Your task to perform on an android device: Add "macbook pro 13 inch" to the cart on newegg Image 0: 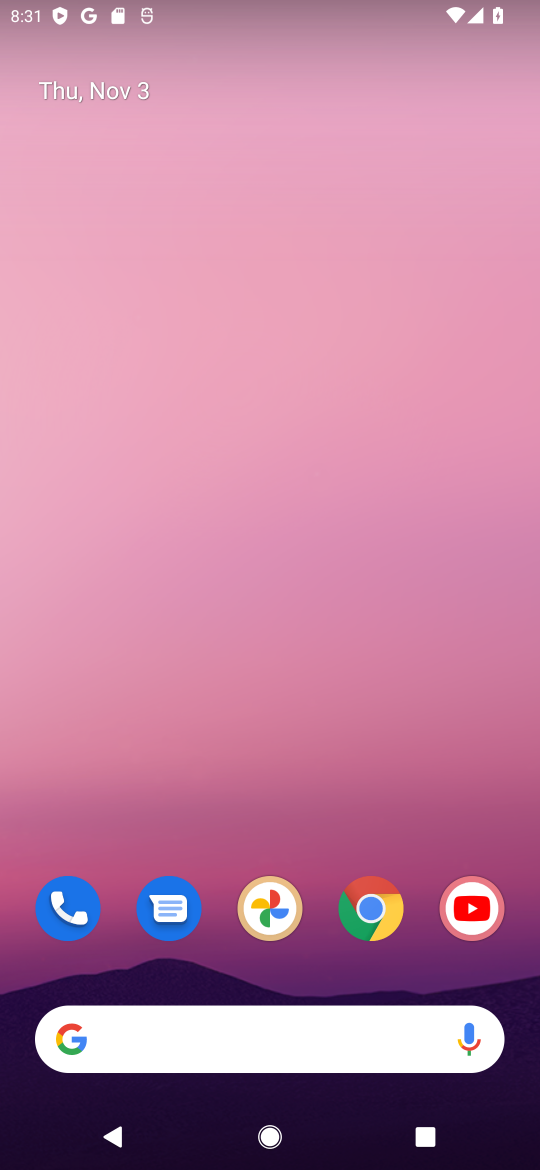
Step 0: click (371, 907)
Your task to perform on an android device: Add "macbook pro 13 inch" to the cart on newegg Image 1: 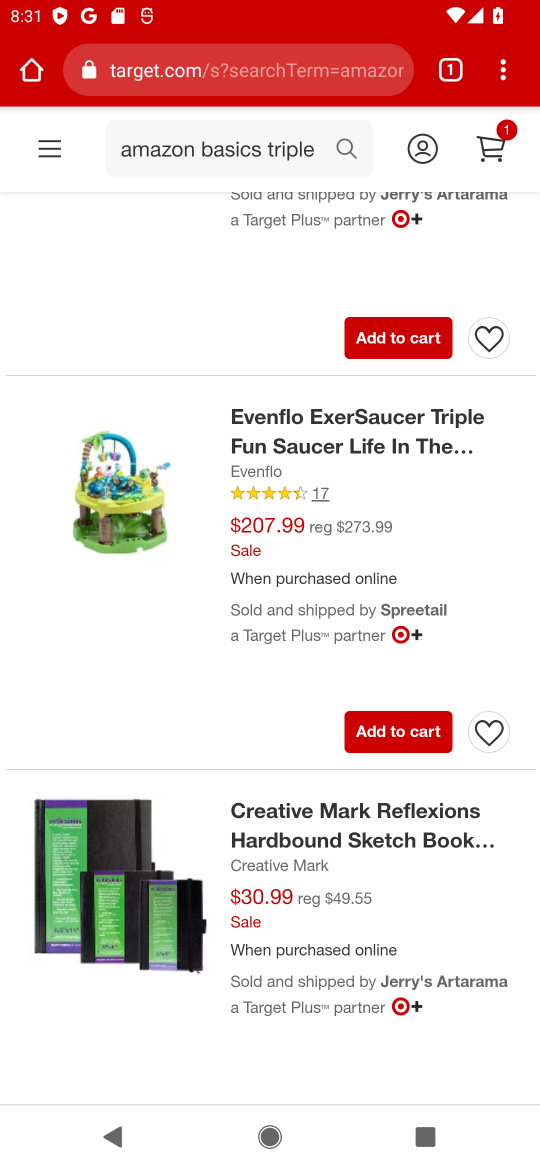
Step 1: click (31, 74)
Your task to perform on an android device: Add "macbook pro 13 inch" to the cart on newegg Image 2: 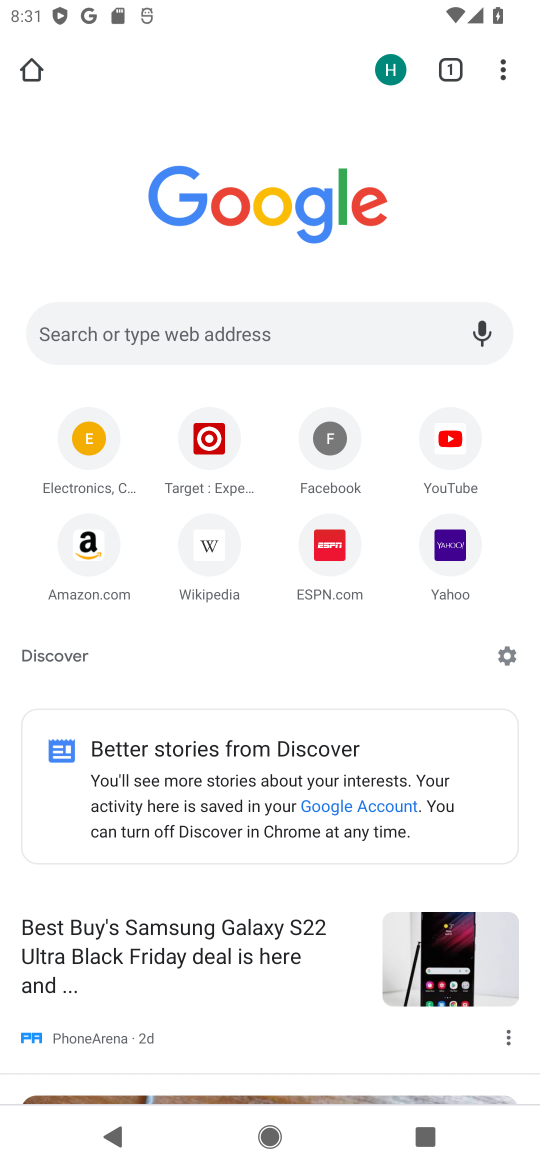
Step 2: click (297, 330)
Your task to perform on an android device: Add "macbook pro 13 inch" to the cart on newegg Image 3: 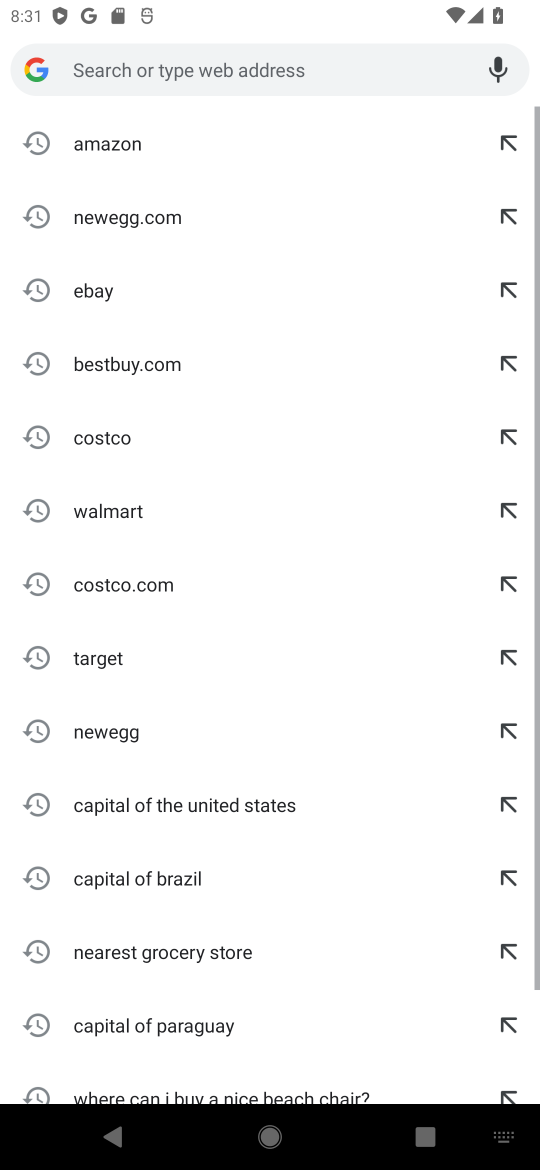
Step 3: click (118, 206)
Your task to perform on an android device: Add "macbook pro 13 inch" to the cart on newegg Image 4: 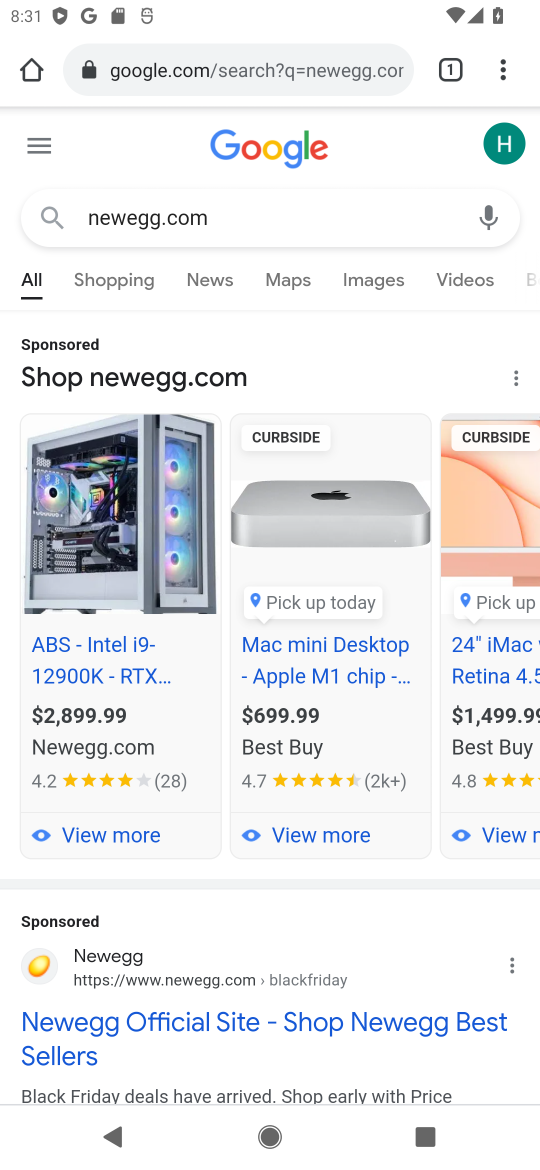
Step 4: click (208, 976)
Your task to perform on an android device: Add "macbook pro 13 inch" to the cart on newegg Image 5: 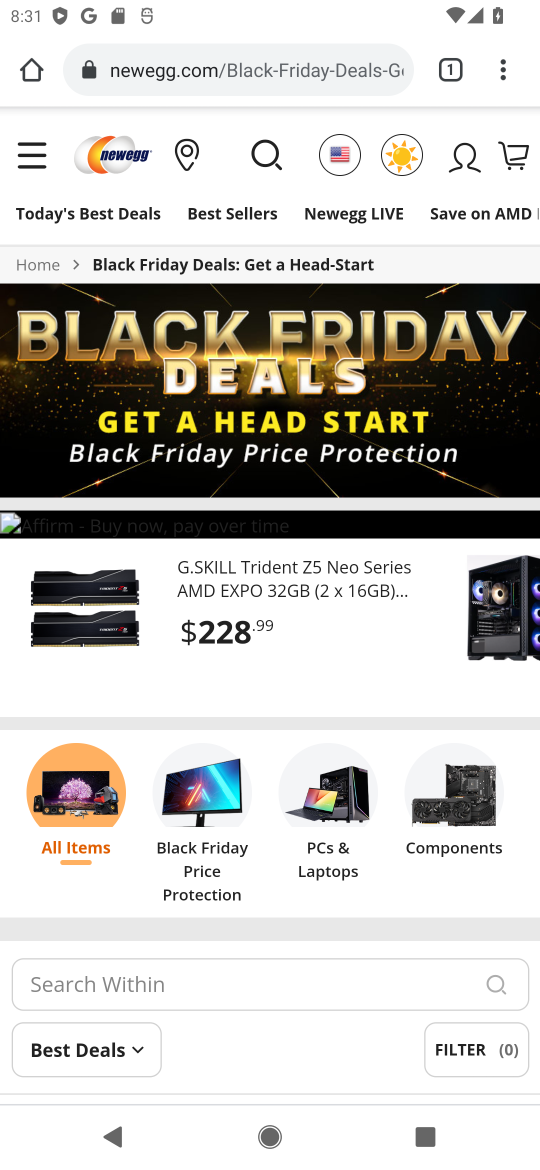
Step 5: click (254, 148)
Your task to perform on an android device: Add "macbook pro 13 inch" to the cart on newegg Image 6: 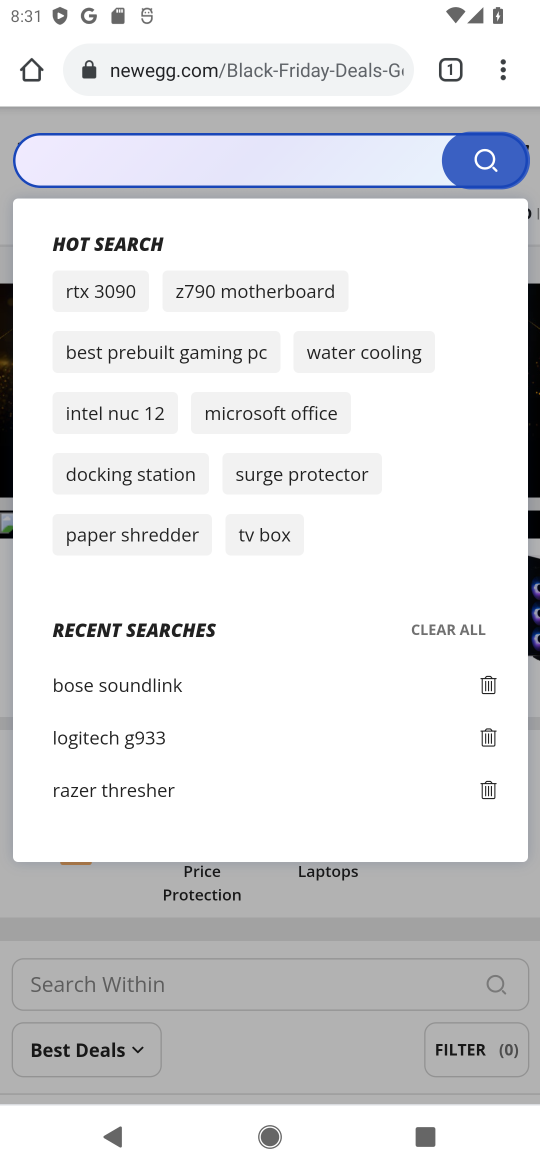
Step 6: type "macbook pro 13"
Your task to perform on an android device: Add "macbook pro 13 inch" to the cart on newegg Image 7: 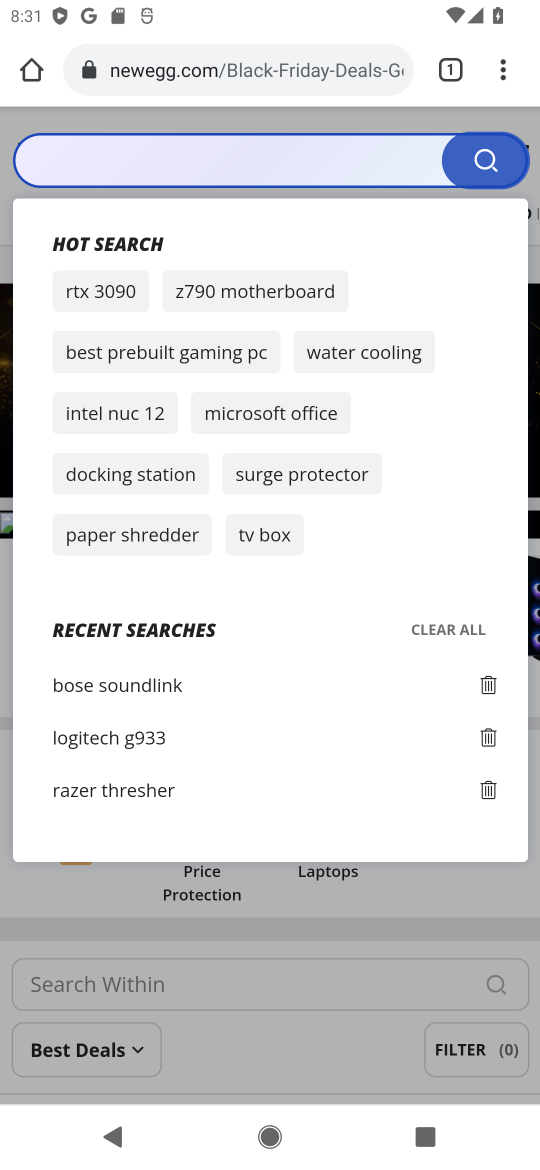
Step 7: press enter
Your task to perform on an android device: Add "macbook pro 13 inch" to the cart on newegg Image 8: 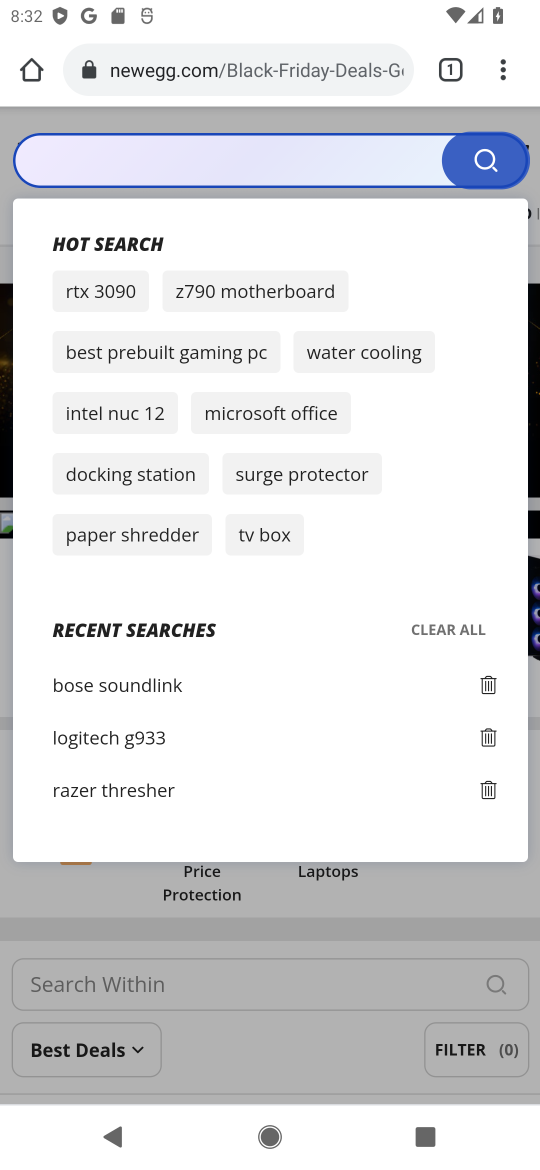
Step 8: click (347, 154)
Your task to perform on an android device: Add "macbook pro 13 inch" to the cart on newegg Image 9: 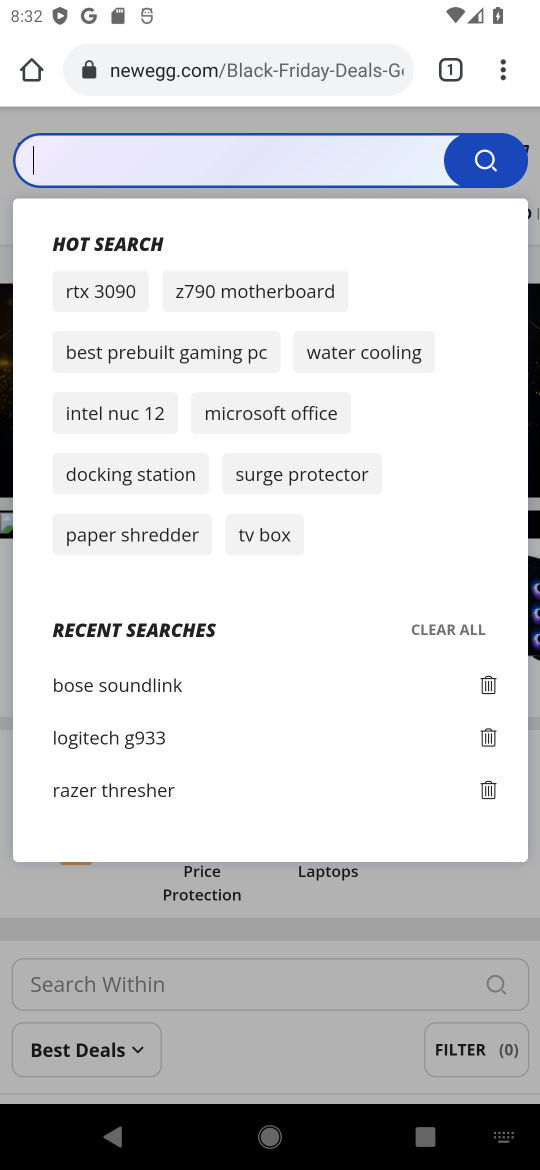
Step 9: type "macbook pro 13"
Your task to perform on an android device: Add "macbook pro 13 inch" to the cart on newegg Image 10: 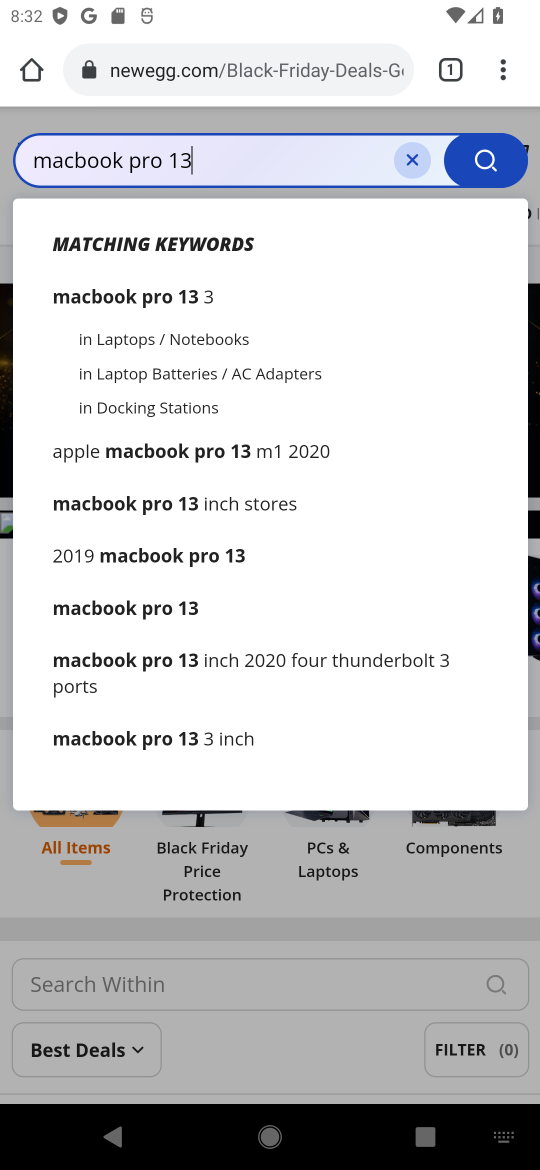
Step 10: click (152, 606)
Your task to perform on an android device: Add "macbook pro 13 inch" to the cart on newegg Image 11: 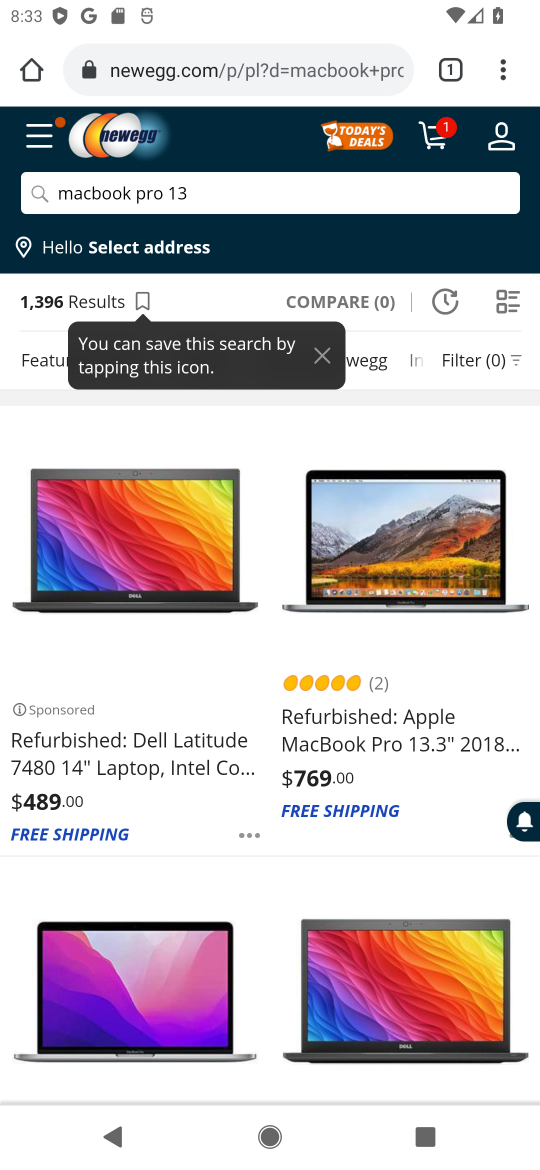
Step 11: click (428, 563)
Your task to perform on an android device: Add "macbook pro 13 inch" to the cart on newegg Image 12: 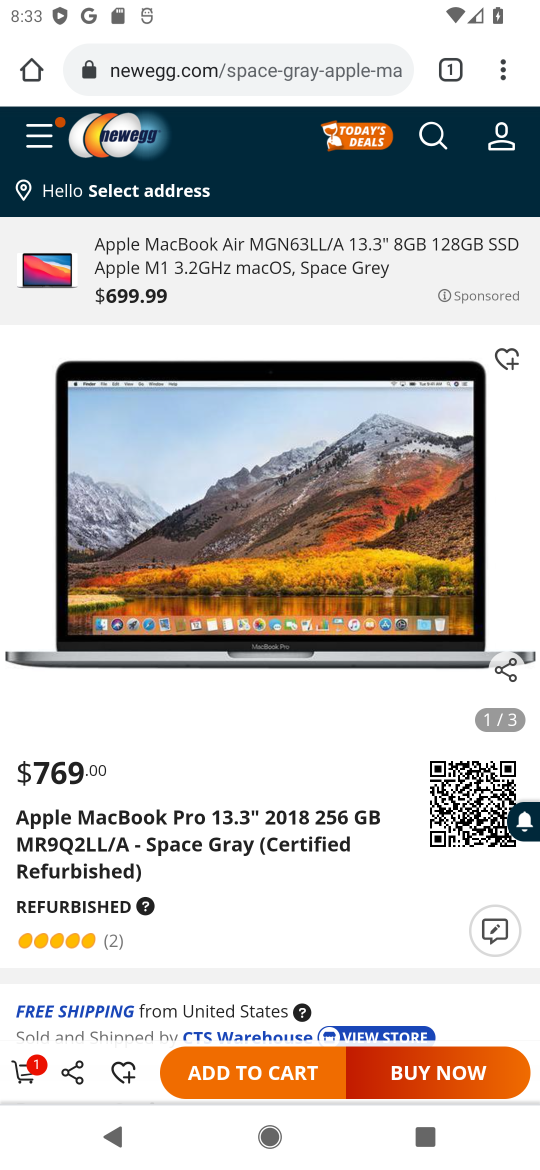
Step 12: click (245, 1069)
Your task to perform on an android device: Add "macbook pro 13 inch" to the cart on newegg Image 13: 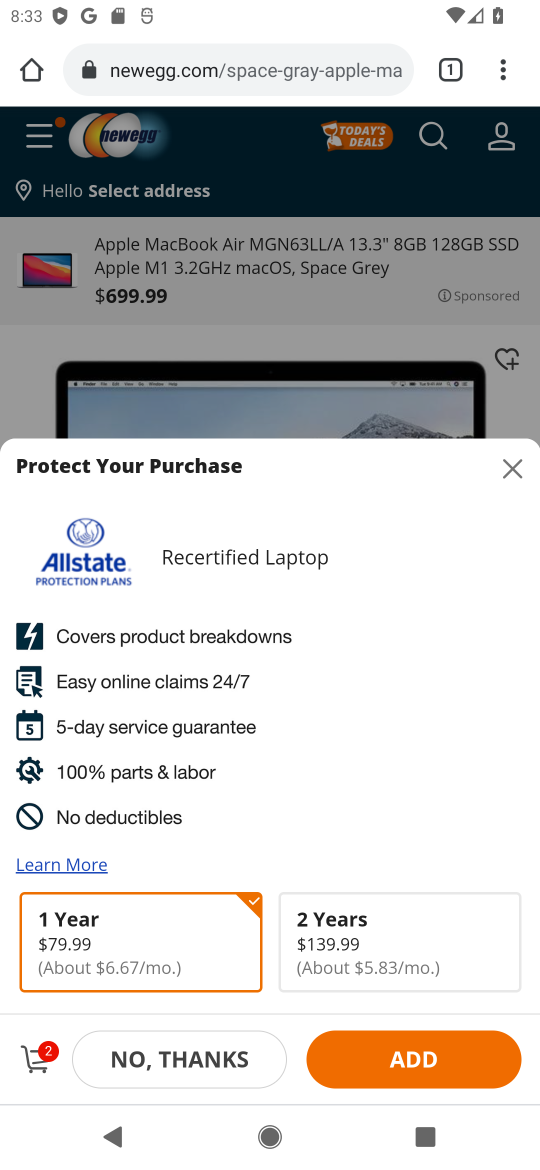
Step 13: task complete